Your task to perform on an android device: open a bookmark in the chrome app Image 0: 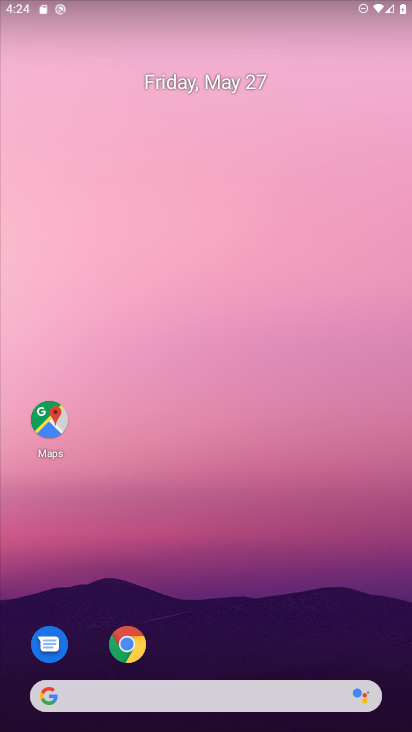
Step 0: click (129, 642)
Your task to perform on an android device: open a bookmark in the chrome app Image 1: 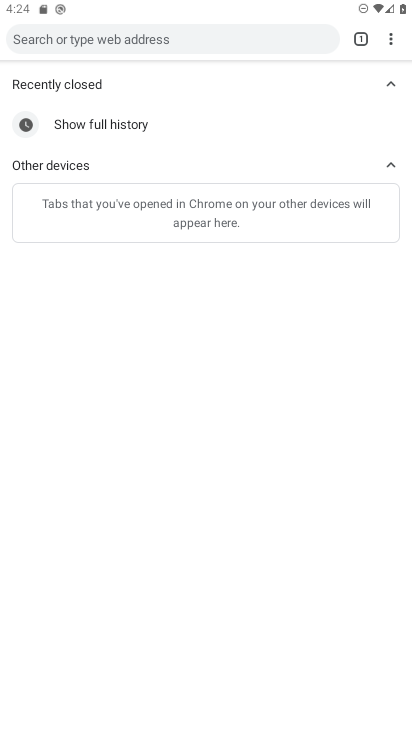
Step 1: click (387, 38)
Your task to perform on an android device: open a bookmark in the chrome app Image 2: 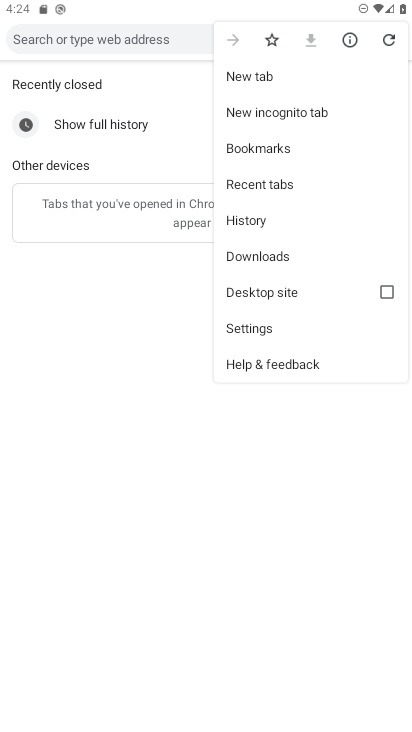
Step 2: click (382, 34)
Your task to perform on an android device: open a bookmark in the chrome app Image 3: 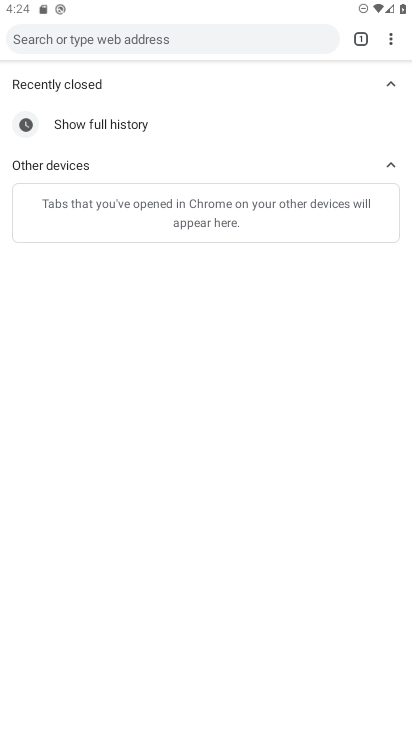
Step 3: click (398, 38)
Your task to perform on an android device: open a bookmark in the chrome app Image 4: 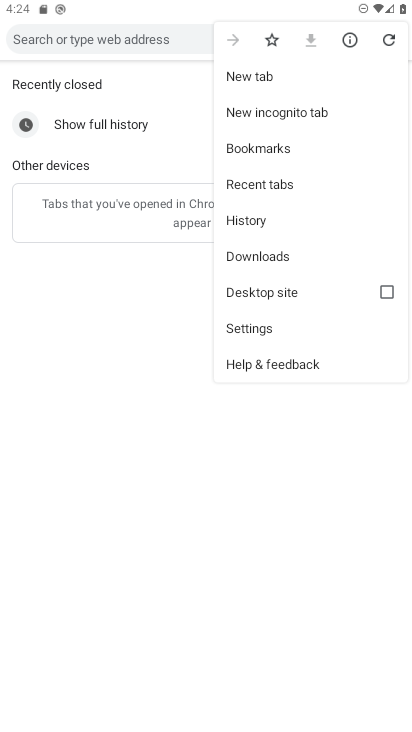
Step 4: click (398, 38)
Your task to perform on an android device: open a bookmark in the chrome app Image 5: 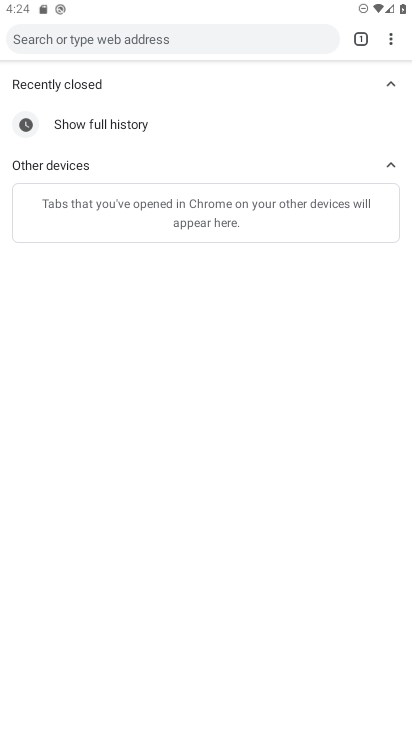
Step 5: click (401, 41)
Your task to perform on an android device: open a bookmark in the chrome app Image 6: 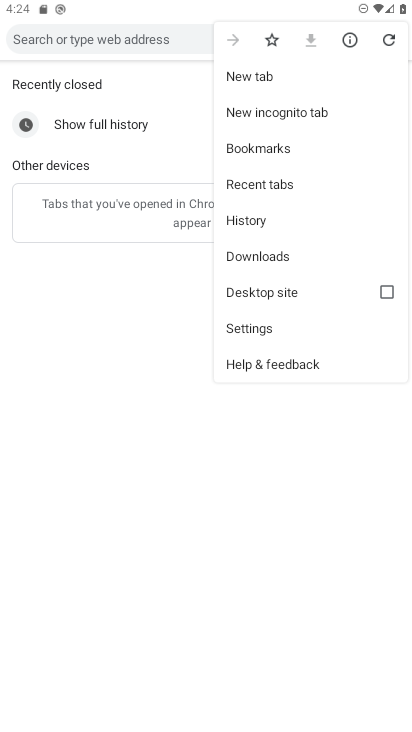
Step 6: click (256, 136)
Your task to perform on an android device: open a bookmark in the chrome app Image 7: 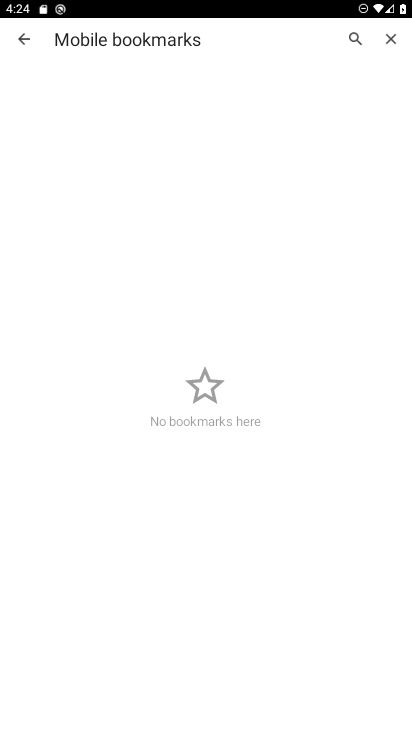
Step 7: task complete